Your task to perform on an android device: Open calendar and show me the fourth week of next month Image 0: 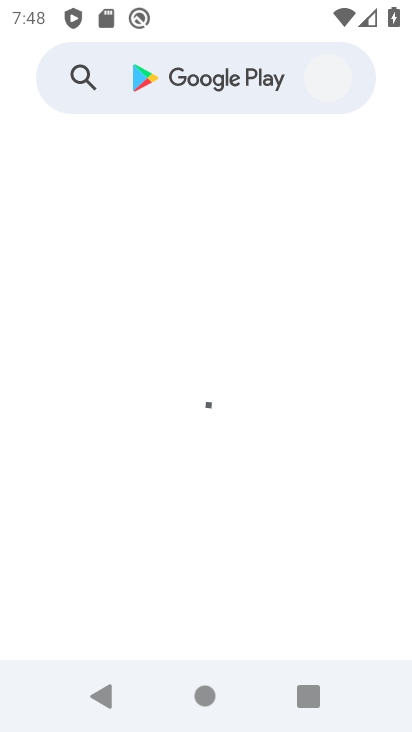
Step 0: press home button
Your task to perform on an android device: Open calendar and show me the fourth week of next month Image 1: 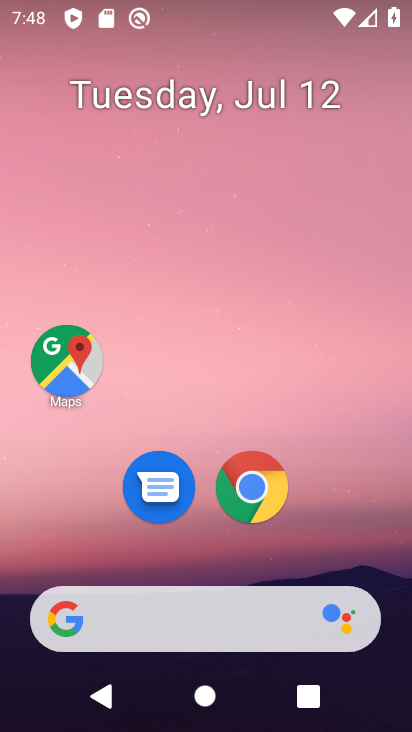
Step 1: drag from (230, 625) to (237, 147)
Your task to perform on an android device: Open calendar and show me the fourth week of next month Image 2: 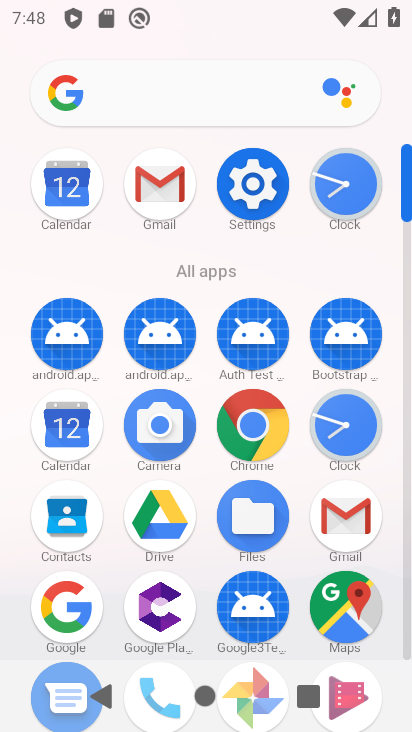
Step 2: click (76, 436)
Your task to perform on an android device: Open calendar and show me the fourth week of next month Image 3: 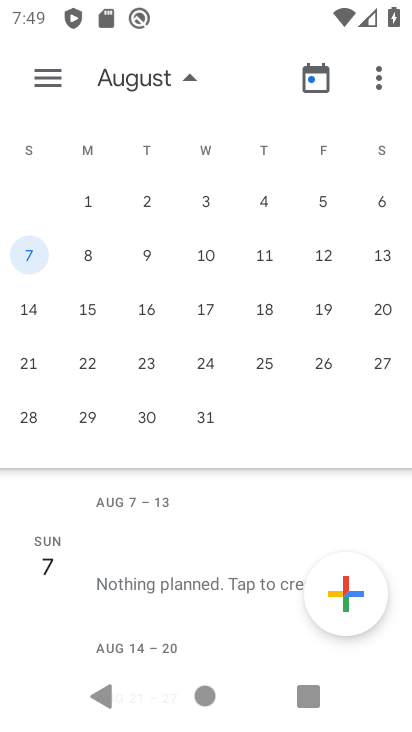
Step 3: click (38, 372)
Your task to perform on an android device: Open calendar and show me the fourth week of next month Image 4: 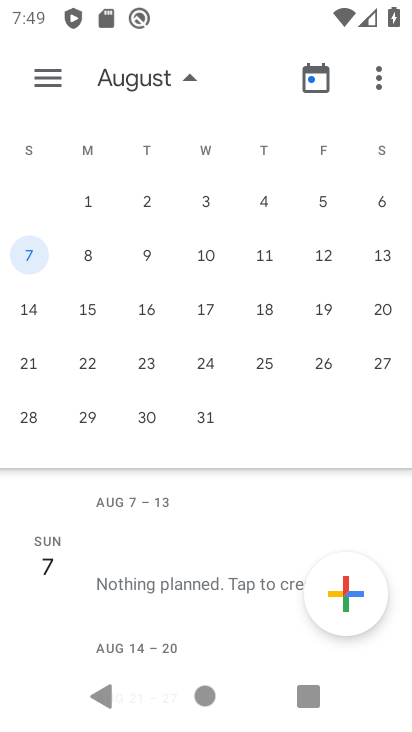
Step 4: click (27, 374)
Your task to perform on an android device: Open calendar and show me the fourth week of next month Image 5: 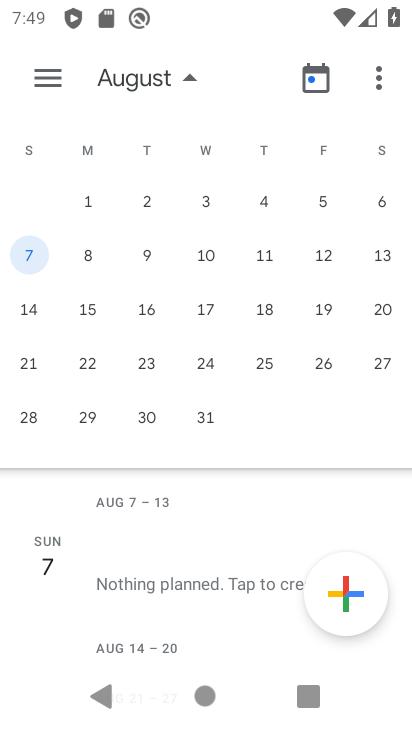
Step 5: click (35, 363)
Your task to perform on an android device: Open calendar and show me the fourth week of next month Image 6: 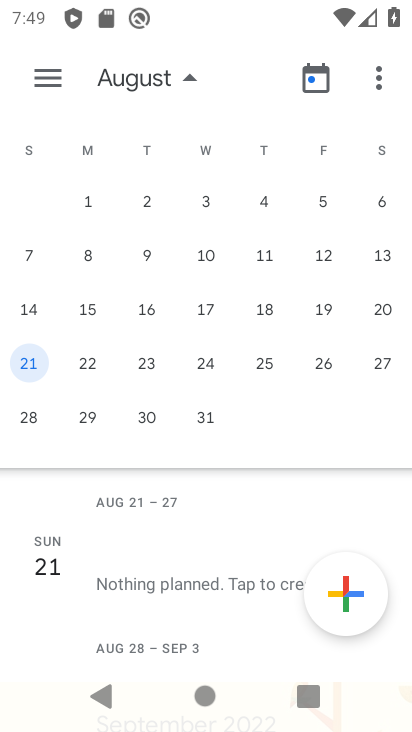
Step 6: task complete